Your task to perform on an android device: open app "Facebook" Image 0: 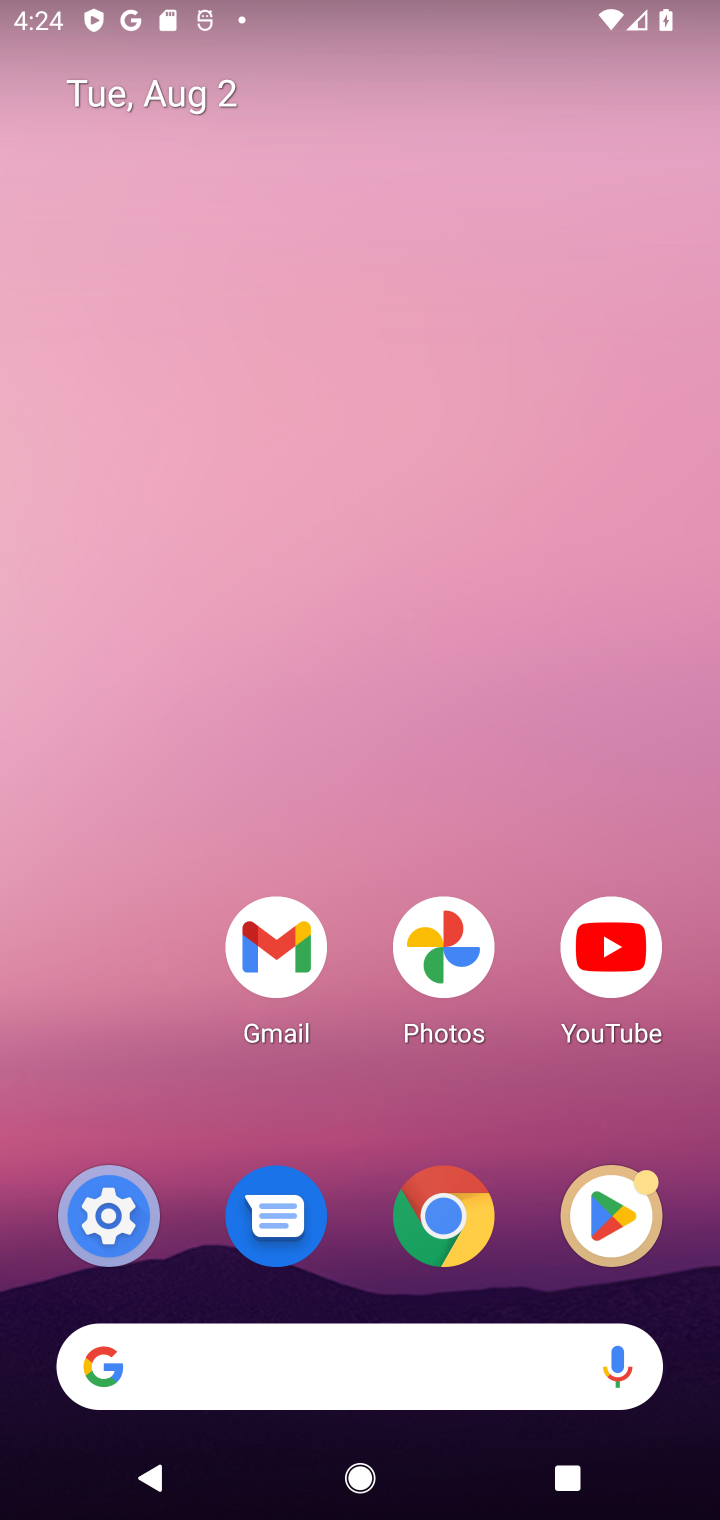
Step 0: click (606, 1251)
Your task to perform on an android device: open app "Facebook" Image 1: 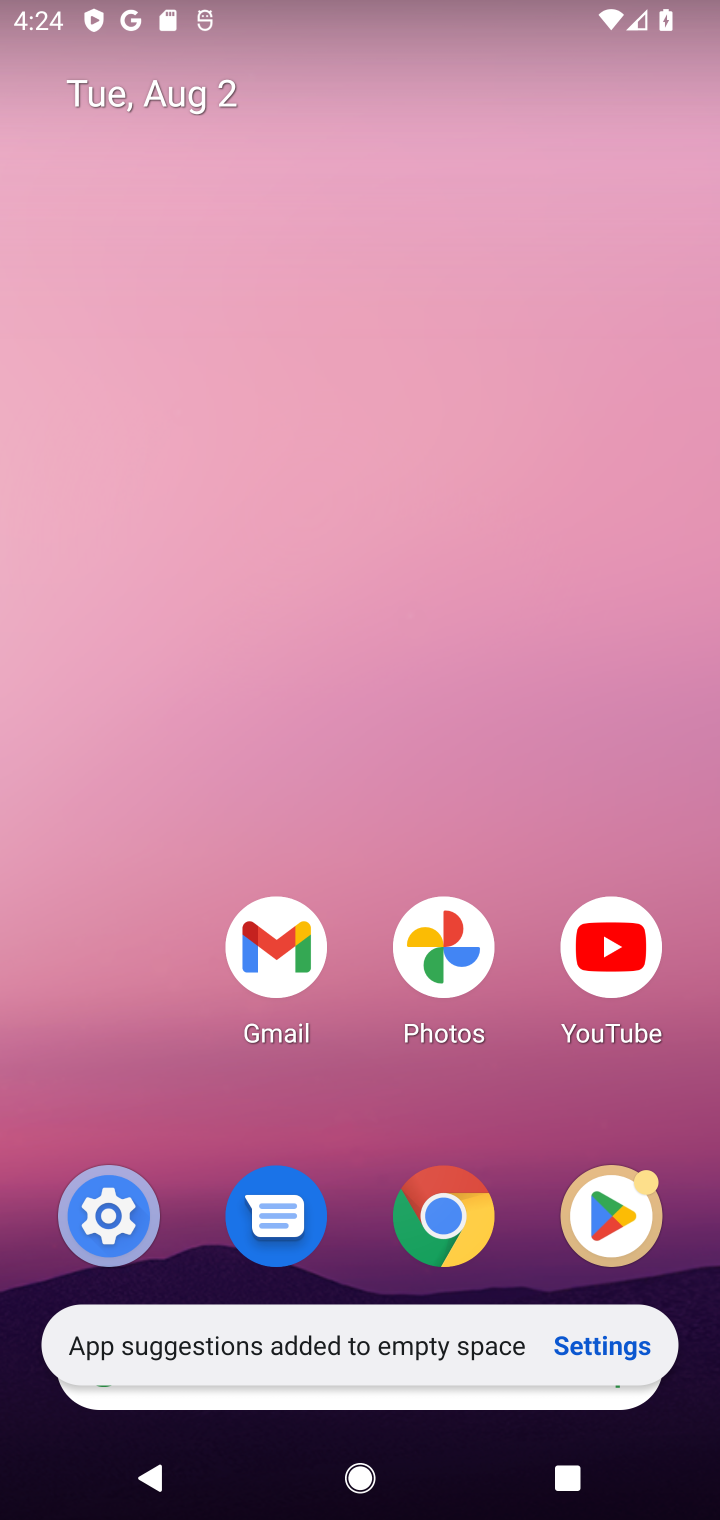
Step 1: click (605, 1226)
Your task to perform on an android device: open app "Facebook" Image 2: 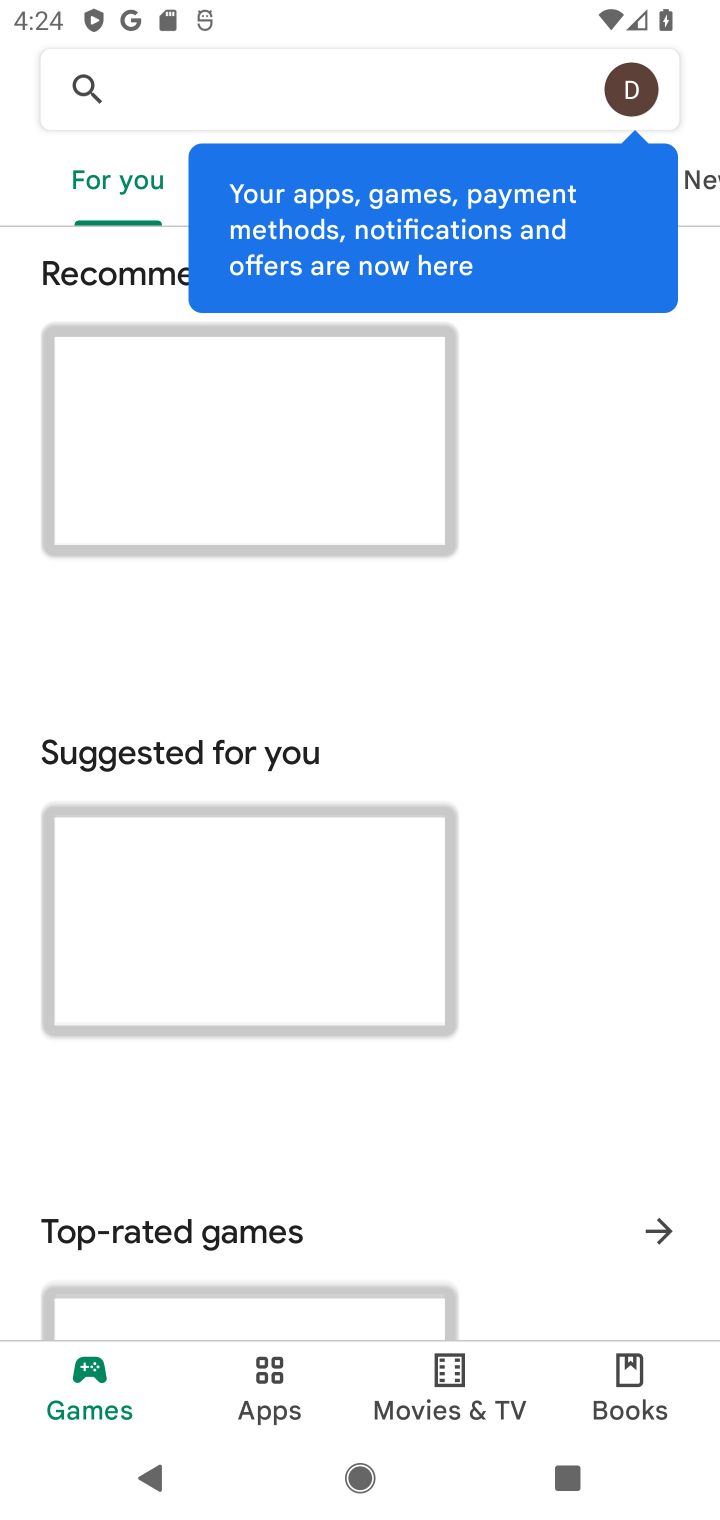
Step 2: click (294, 109)
Your task to perform on an android device: open app "Facebook" Image 3: 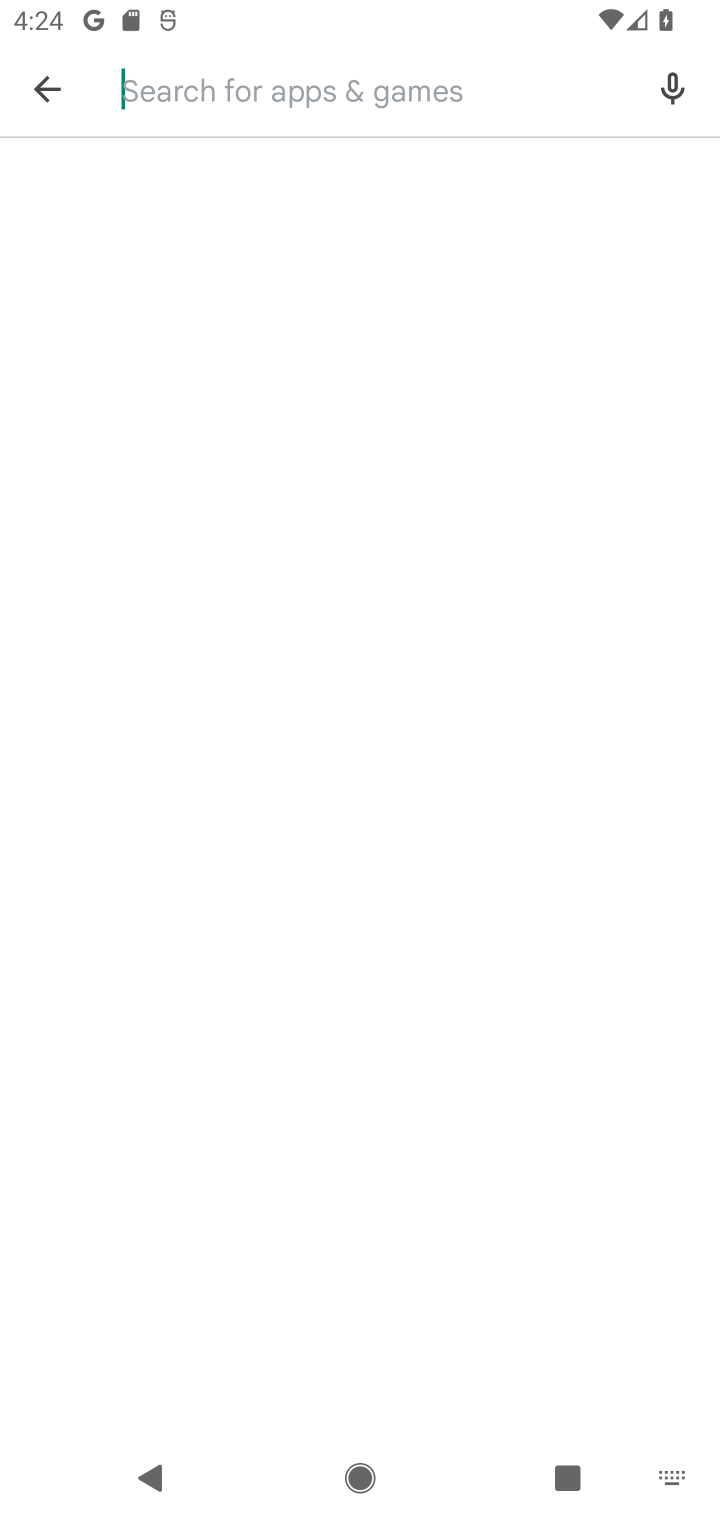
Step 3: click (294, 109)
Your task to perform on an android device: open app "Facebook" Image 4: 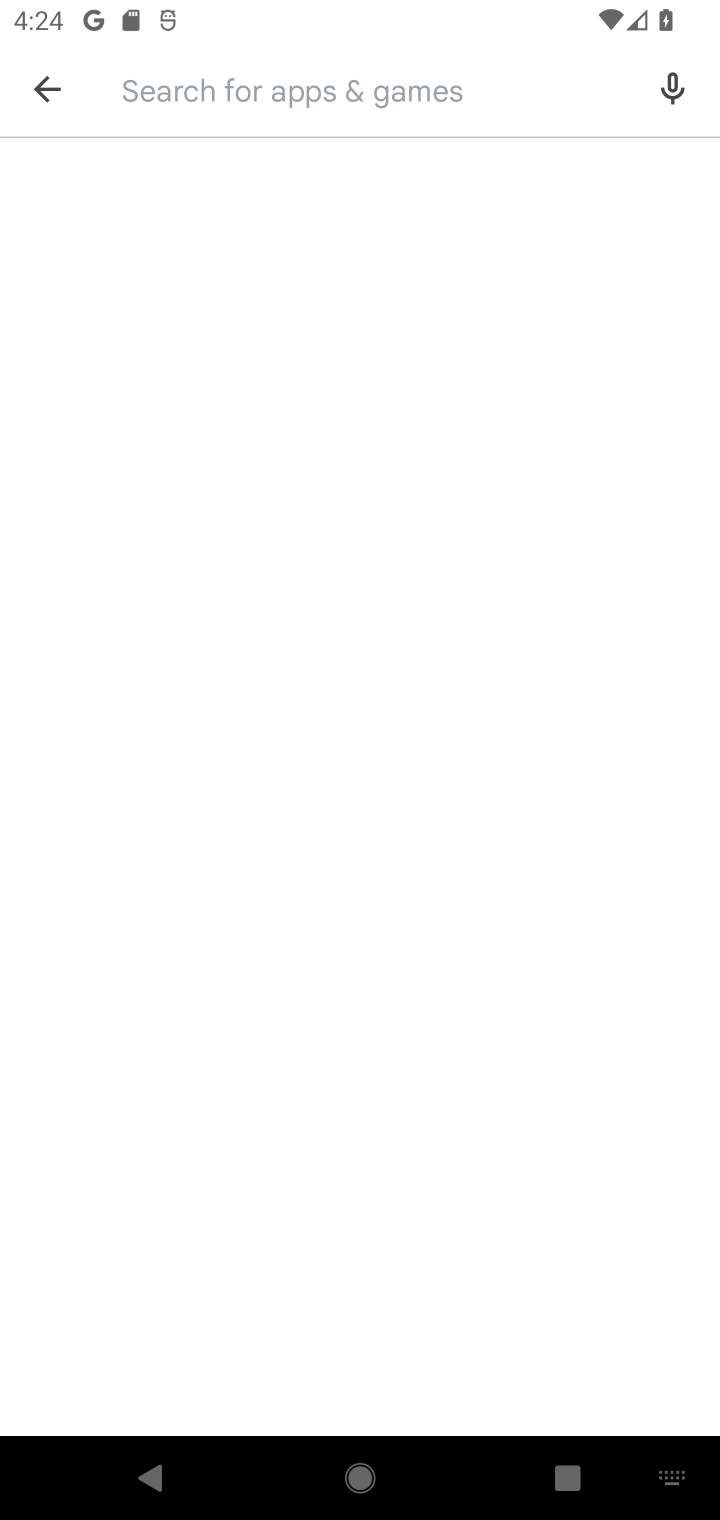
Step 4: type "facebook"
Your task to perform on an android device: open app "Facebook" Image 5: 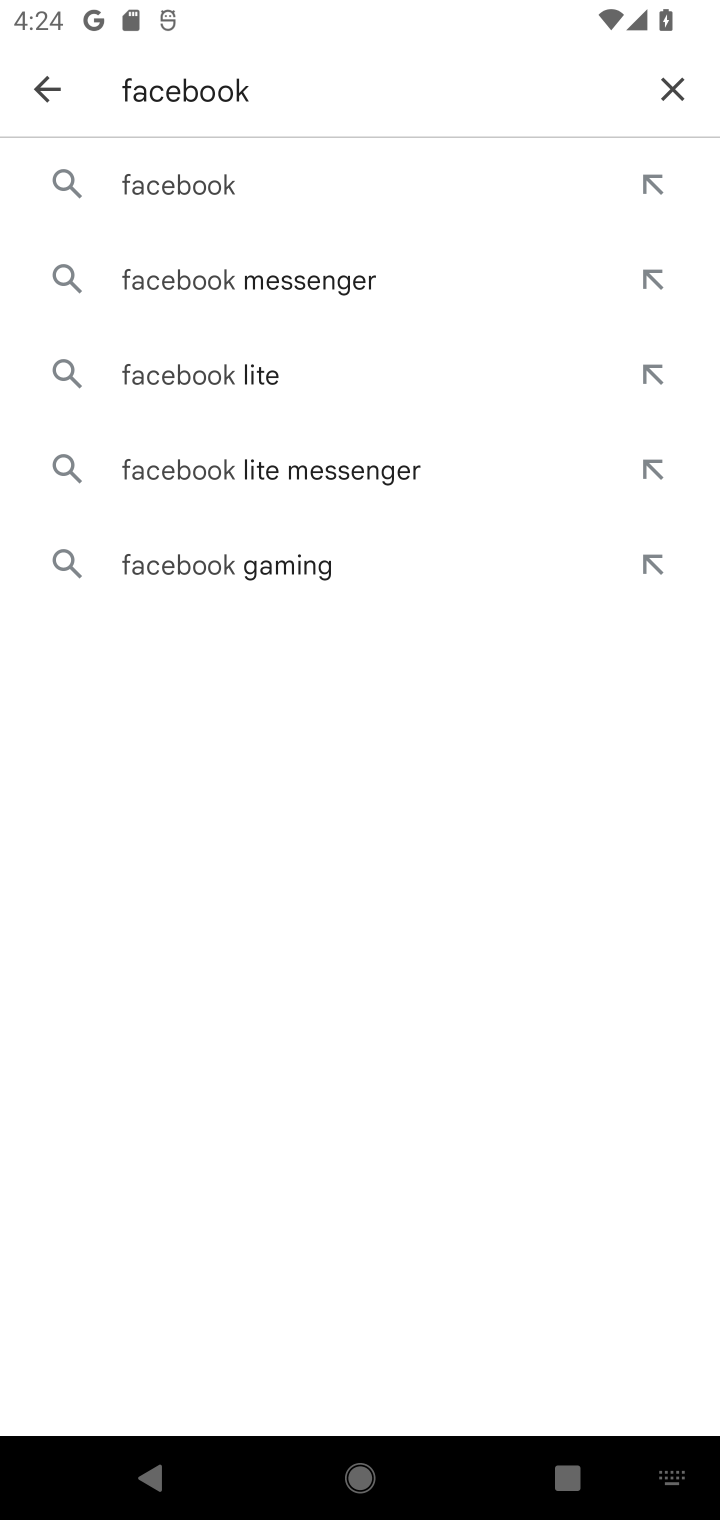
Step 5: click (319, 180)
Your task to perform on an android device: open app "Facebook" Image 6: 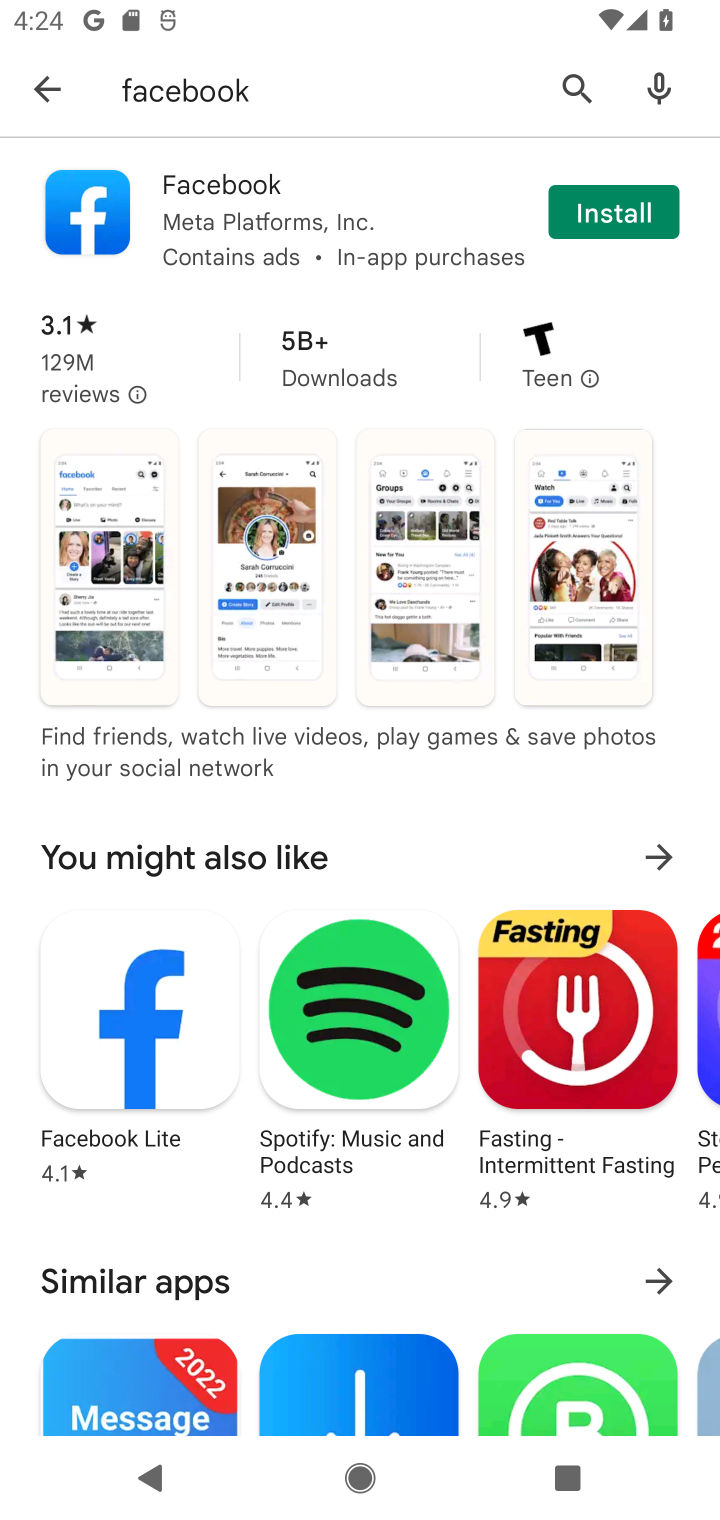
Step 6: click (596, 232)
Your task to perform on an android device: open app "Facebook" Image 7: 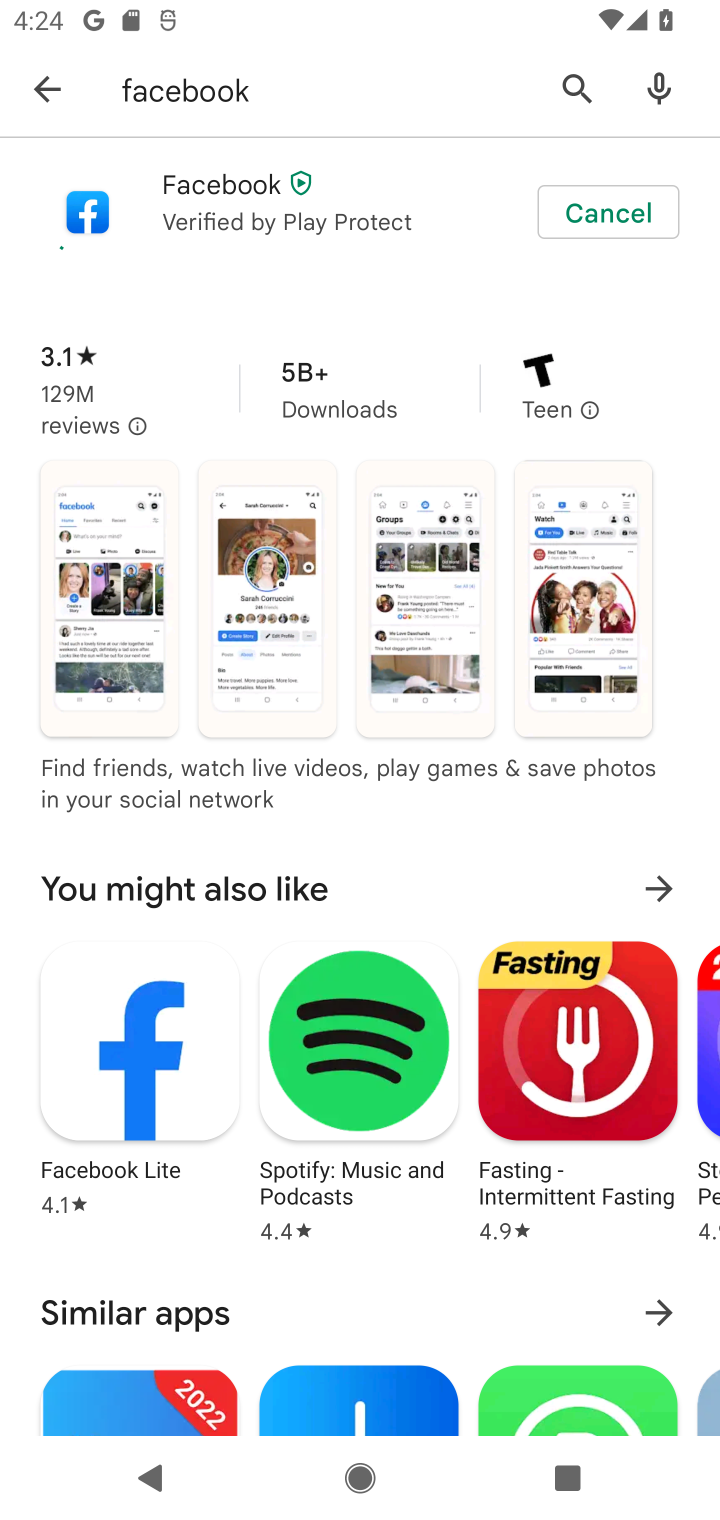
Step 7: task complete